Your task to perform on an android device: Open Chrome and go to settings Image 0: 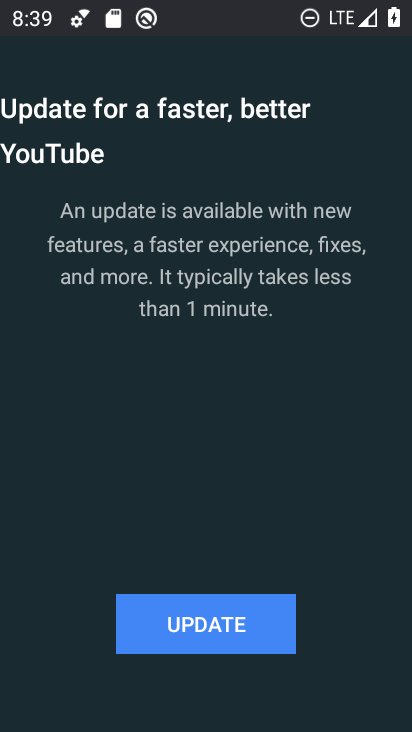
Step 0: press home button
Your task to perform on an android device: Open Chrome and go to settings Image 1: 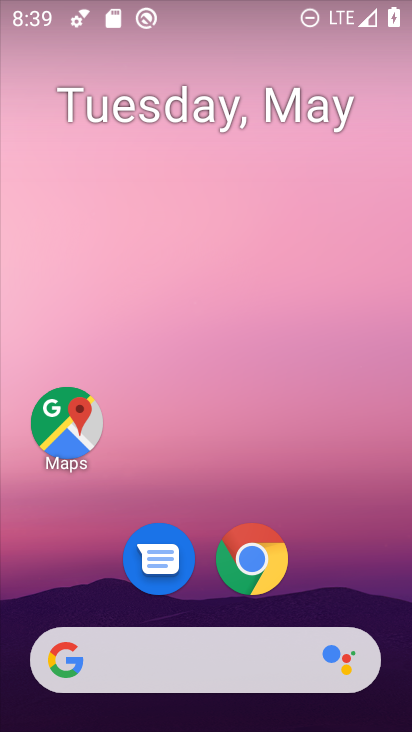
Step 1: click (227, 584)
Your task to perform on an android device: Open Chrome and go to settings Image 2: 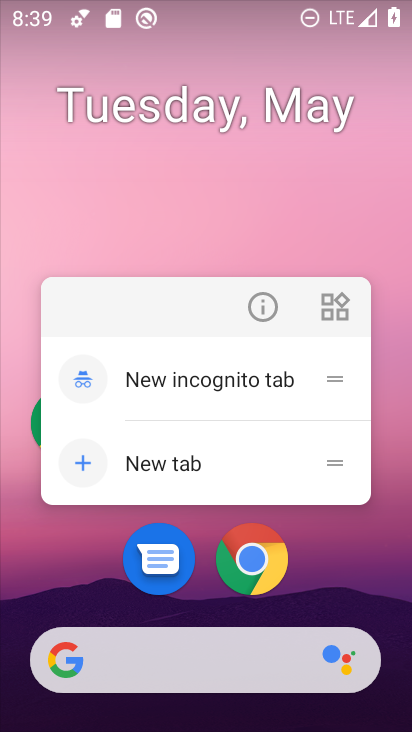
Step 2: click (237, 569)
Your task to perform on an android device: Open Chrome and go to settings Image 3: 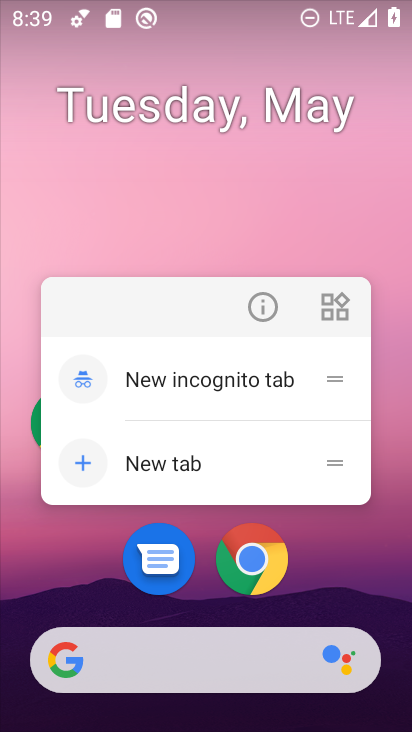
Step 3: click (265, 555)
Your task to perform on an android device: Open Chrome and go to settings Image 4: 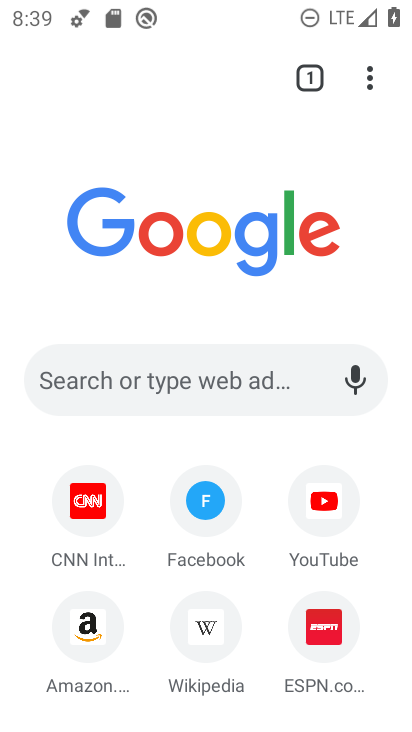
Step 4: task complete